Your task to perform on an android device: turn notification dots off Image 0: 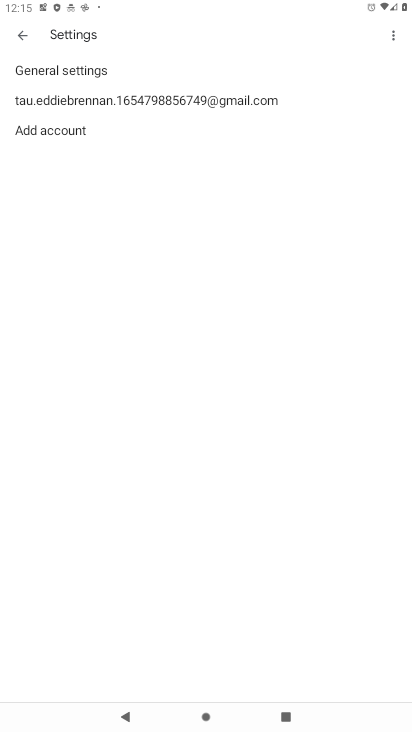
Step 0: press home button
Your task to perform on an android device: turn notification dots off Image 1: 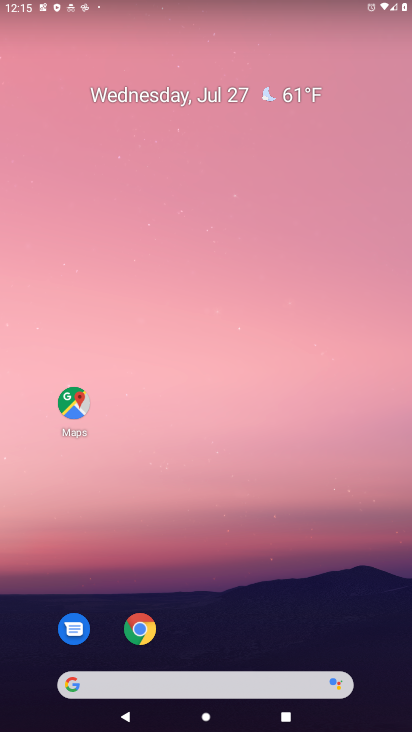
Step 1: drag from (284, 649) to (278, 78)
Your task to perform on an android device: turn notification dots off Image 2: 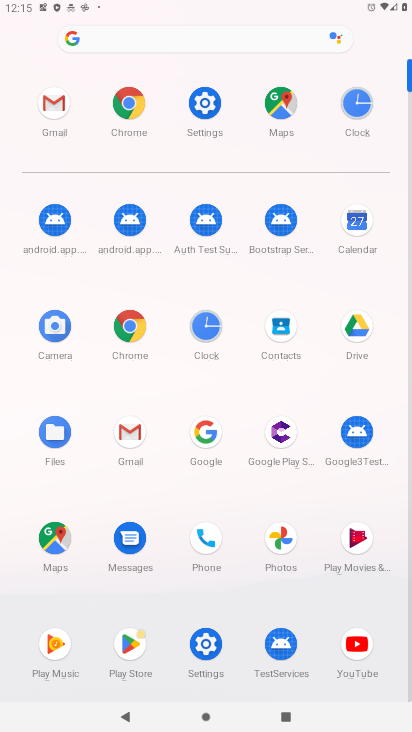
Step 2: click (207, 105)
Your task to perform on an android device: turn notification dots off Image 3: 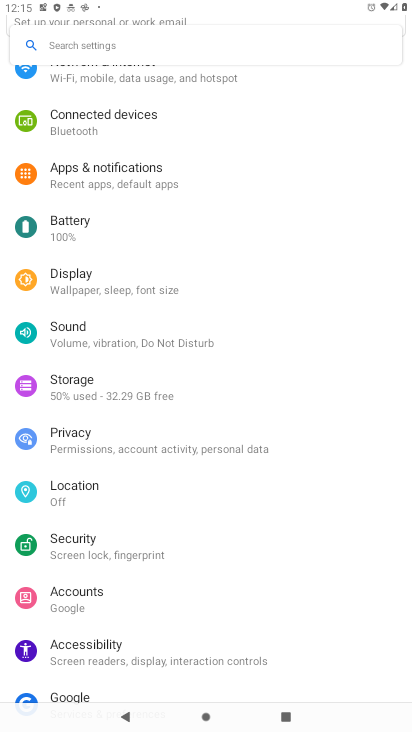
Step 3: task complete